Your task to perform on an android device: Open Android settings Image 0: 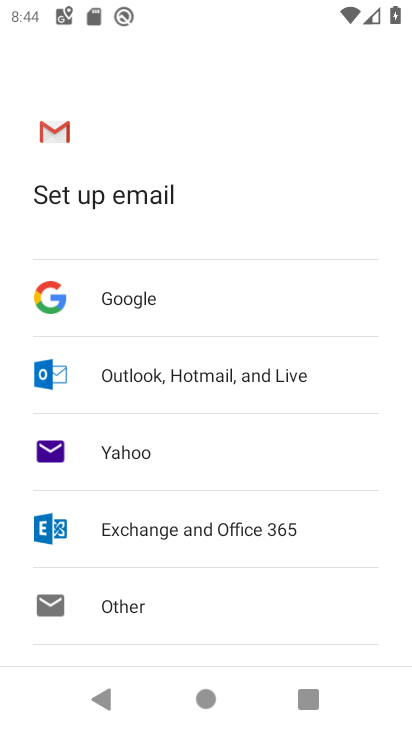
Step 0: press back button
Your task to perform on an android device: Open Android settings Image 1: 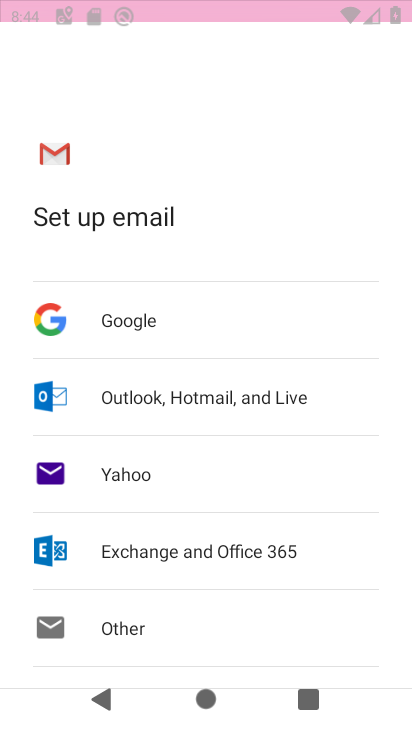
Step 1: press back button
Your task to perform on an android device: Open Android settings Image 2: 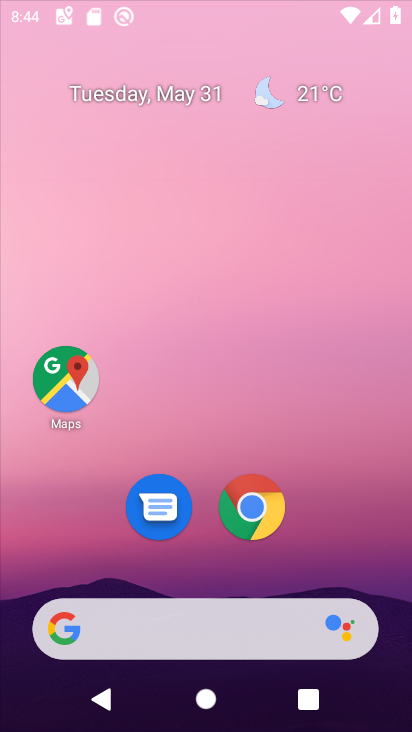
Step 2: press back button
Your task to perform on an android device: Open Android settings Image 3: 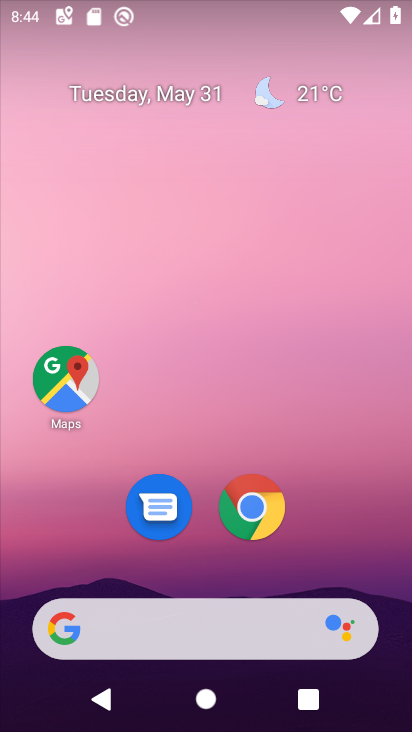
Step 3: drag from (256, 678) to (241, 268)
Your task to perform on an android device: Open Android settings Image 4: 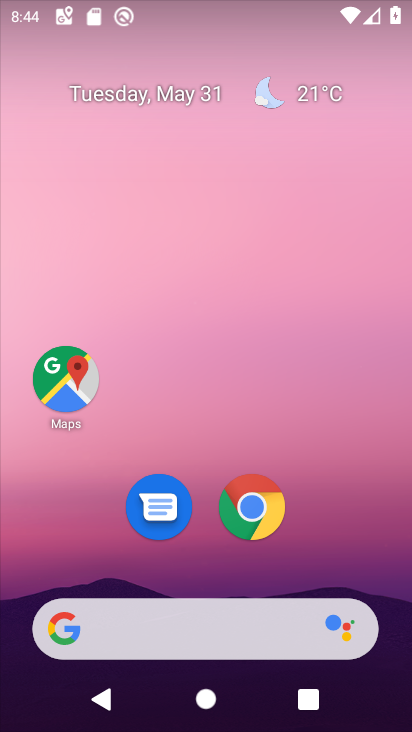
Step 4: drag from (258, 657) to (206, 130)
Your task to perform on an android device: Open Android settings Image 5: 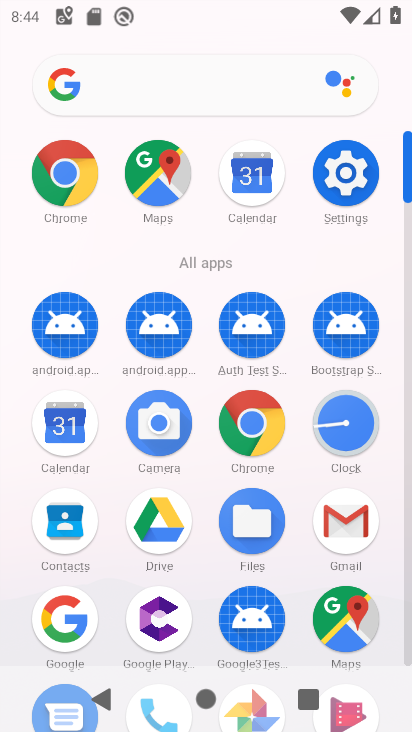
Step 5: click (352, 180)
Your task to perform on an android device: Open Android settings Image 6: 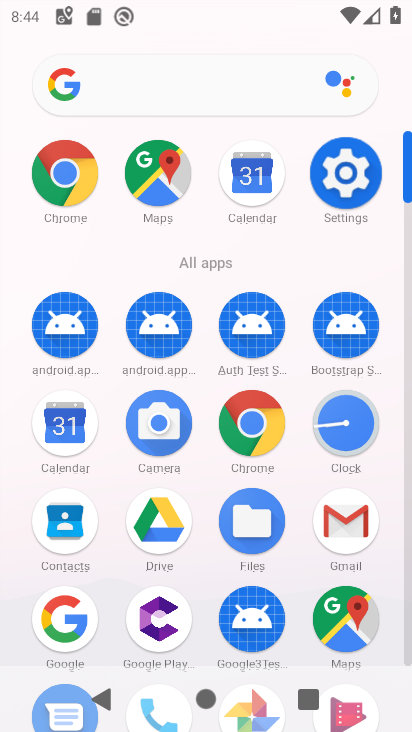
Step 6: click (352, 180)
Your task to perform on an android device: Open Android settings Image 7: 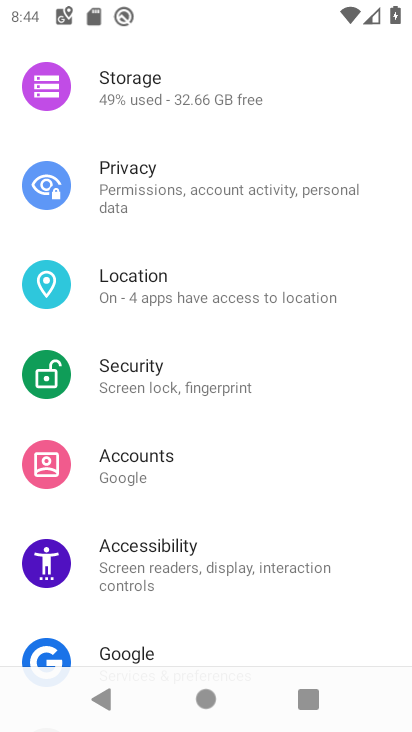
Step 7: drag from (163, 568) to (163, 236)
Your task to perform on an android device: Open Android settings Image 8: 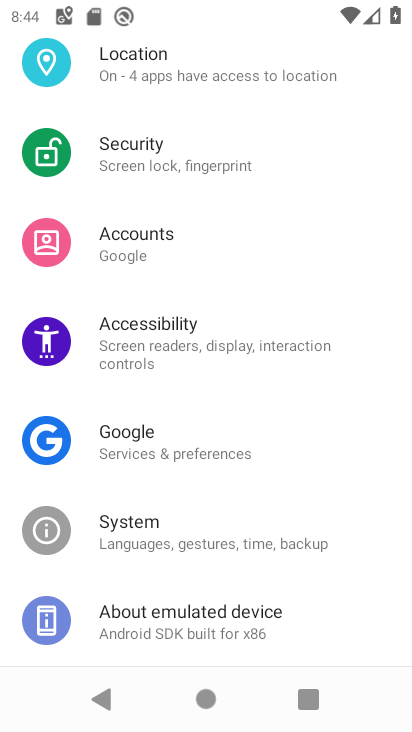
Step 8: drag from (125, 453) to (141, 229)
Your task to perform on an android device: Open Android settings Image 9: 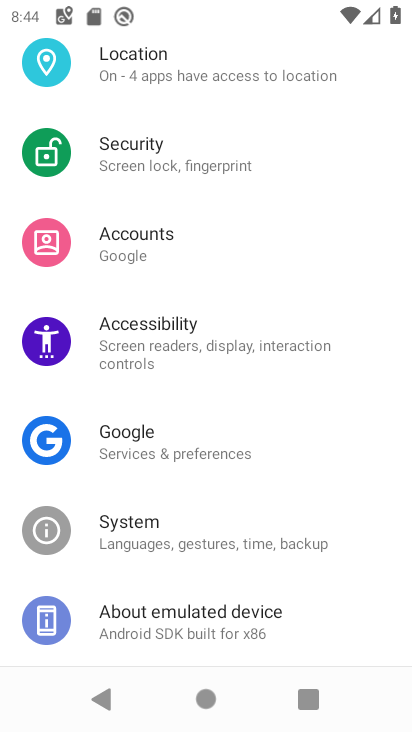
Step 9: drag from (161, 517) to (193, 260)
Your task to perform on an android device: Open Android settings Image 10: 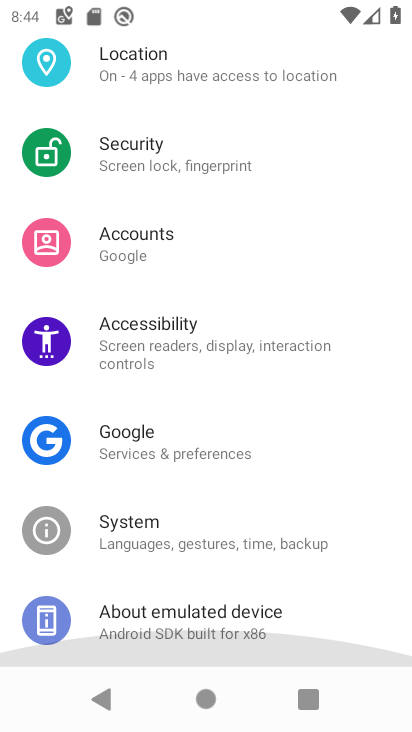
Step 10: drag from (216, 457) to (216, 118)
Your task to perform on an android device: Open Android settings Image 11: 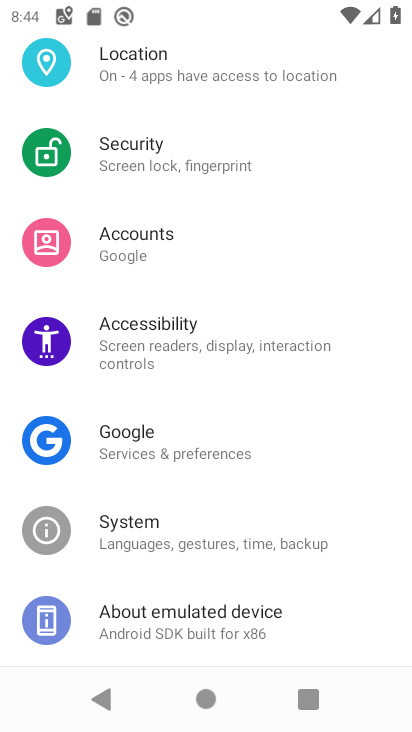
Step 11: click (180, 616)
Your task to perform on an android device: Open Android settings Image 12: 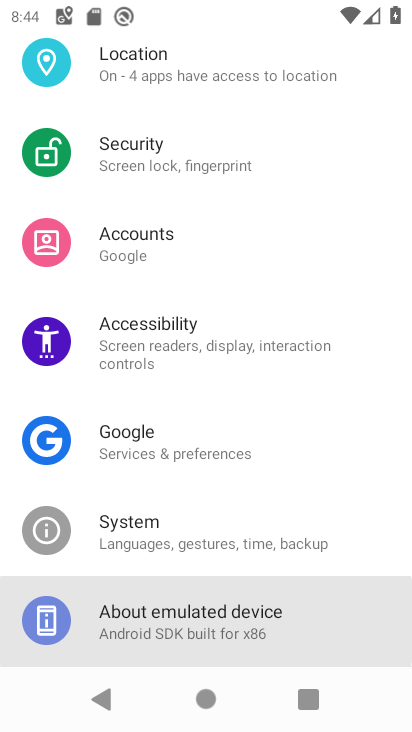
Step 12: click (186, 616)
Your task to perform on an android device: Open Android settings Image 13: 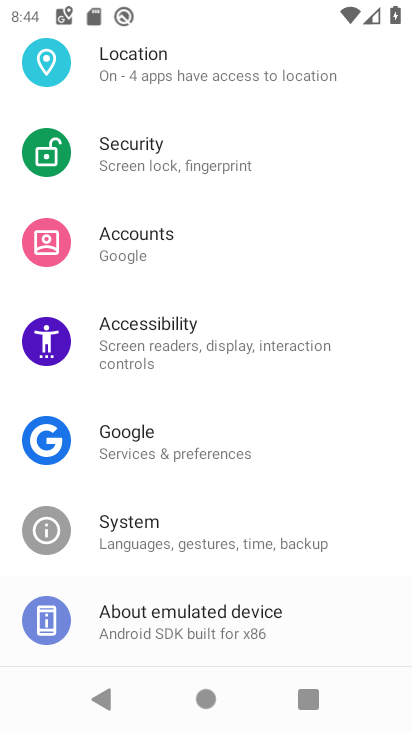
Step 13: click (186, 616)
Your task to perform on an android device: Open Android settings Image 14: 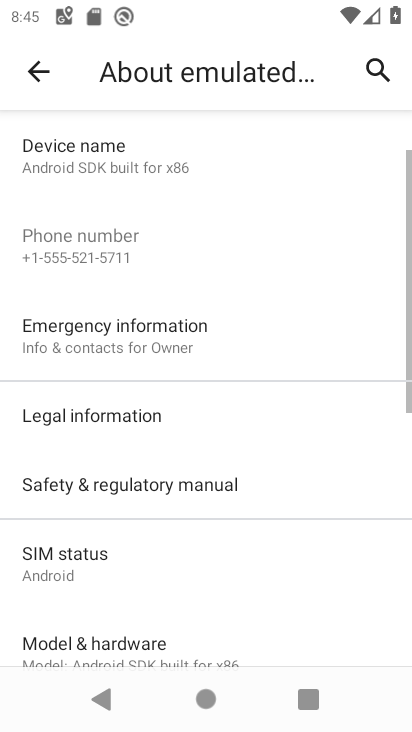
Step 14: task complete